Your task to perform on an android device: toggle priority inbox in the gmail app Image 0: 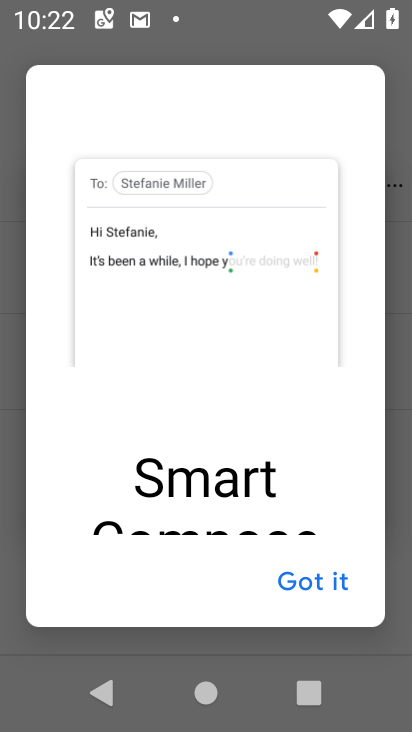
Step 0: press home button
Your task to perform on an android device: toggle priority inbox in the gmail app Image 1: 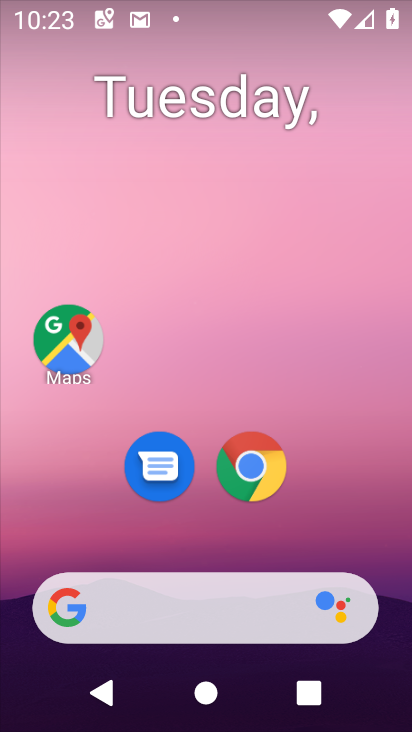
Step 1: drag from (247, 662) to (333, 155)
Your task to perform on an android device: toggle priority inbox in the gmail app Image 2: 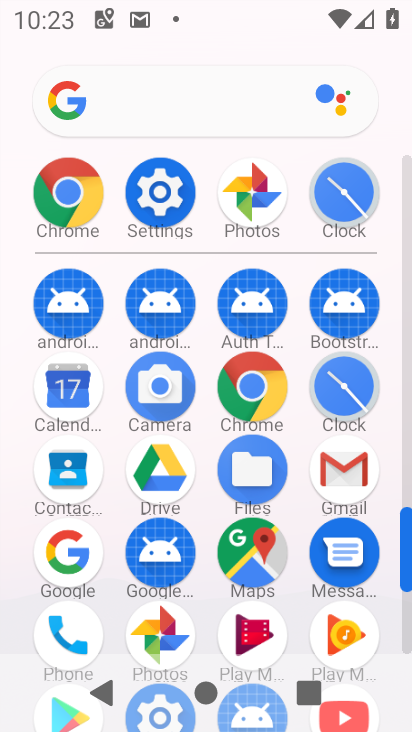
Step 2: click (328, 464)
Your task to perform on an android device: toggle priority inbox in the gmail app Image 3: 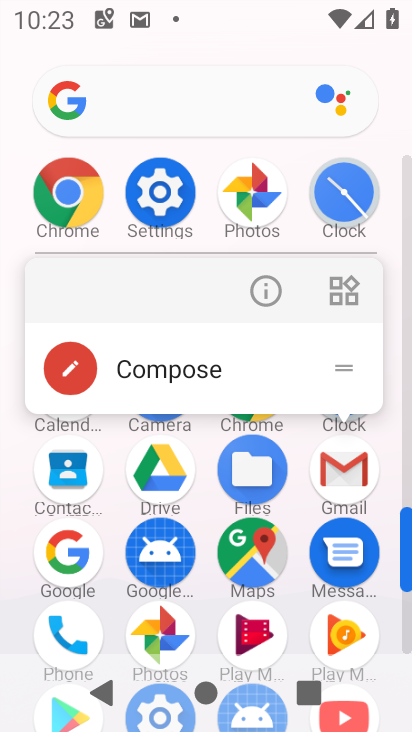
Step 3: click (348, 462)
Your task to perform on an android device: toggle priority inbox in the gmail app Image 4: 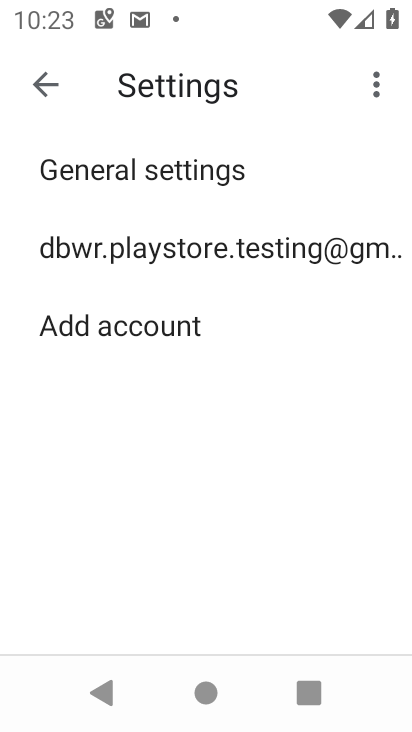
Step 4: click (163, 257)
Your task to perform on an android device: toggle priority inbox in the gmail app Image 5: 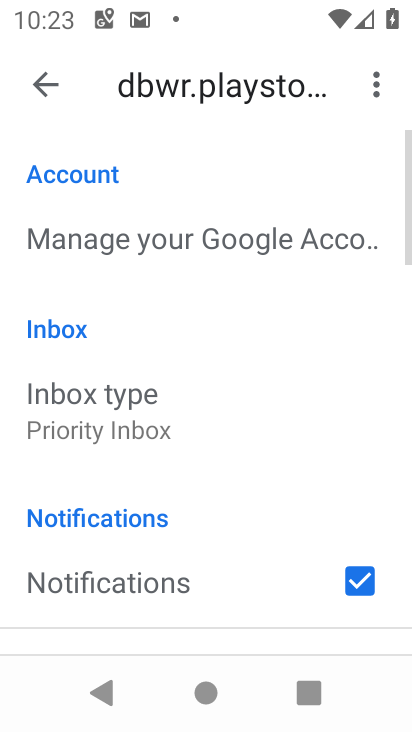
Step 5: click (115, 433)
Your task to perform on an android device: toggle priority inbox in the gmail app Image 6: 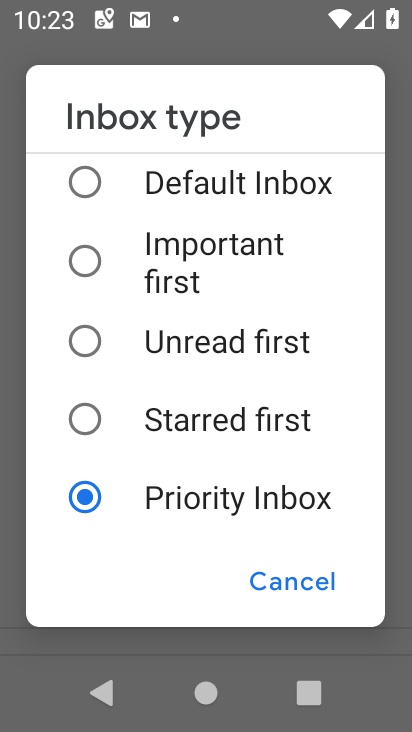
Step 6: task complete